Your task to perform on an android device: Go to wifi settings Image 0: 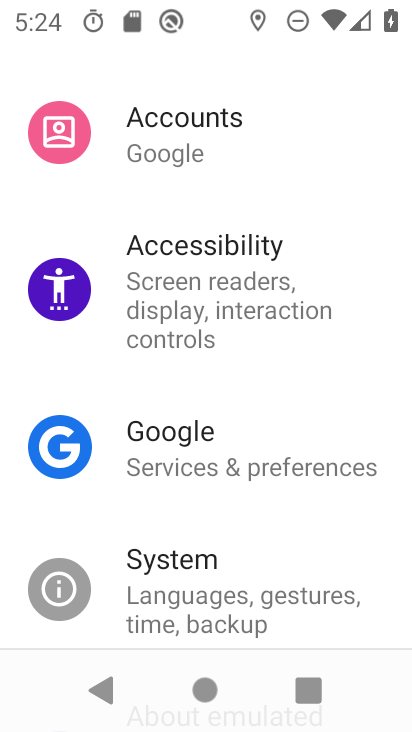
Step 0: press home button
Your task to perform on an android device: Go to wifi settings Image 1: 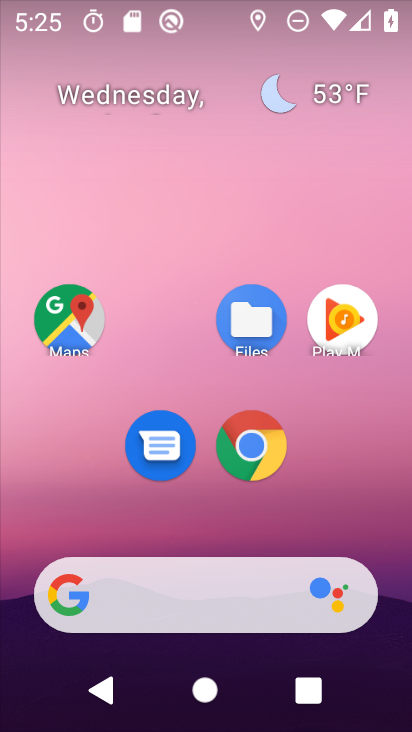
Step 1: drag from (237, 531) to (173, 62)
Your task to perform on an android device: Go to wifi settings Image 2: 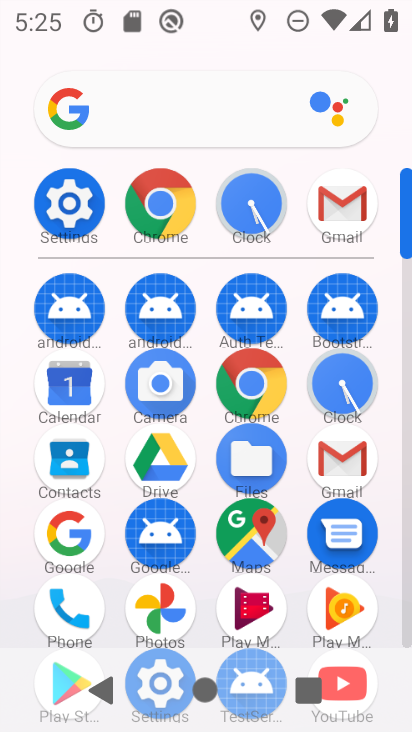
Step 2: click (75, 199)
Your task to perform on an android device: Go to wifi settings Image 3: 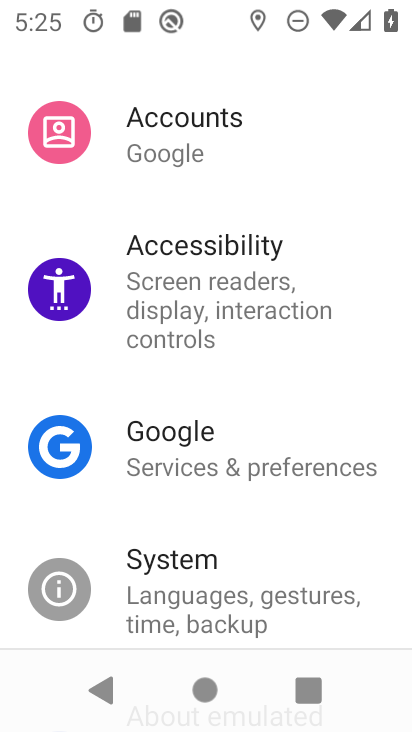
Step 3: drag from (296, 204) to (320, 684)
Your task to perform on an android device: Go to wifi settings Image 4: 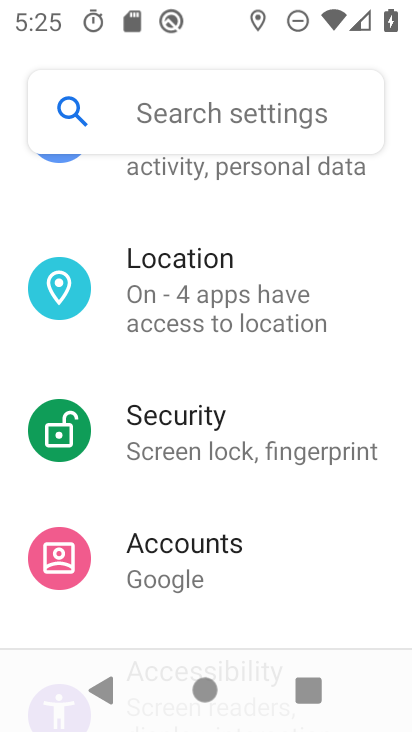
Step 4: drag from (285, 204) to (342, 443)
Your task to perform on an android device: Go to wifi settings Image 5: 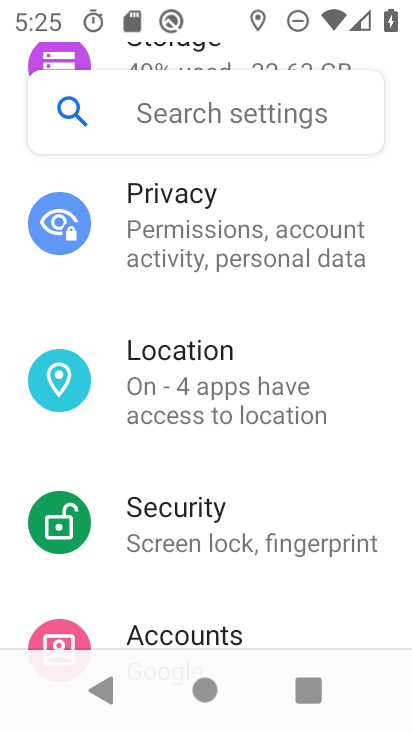
Step 5: drag from (287, 193) to (267, 416)
Your task to perform on an android device: Go to wifi settings Image 6: 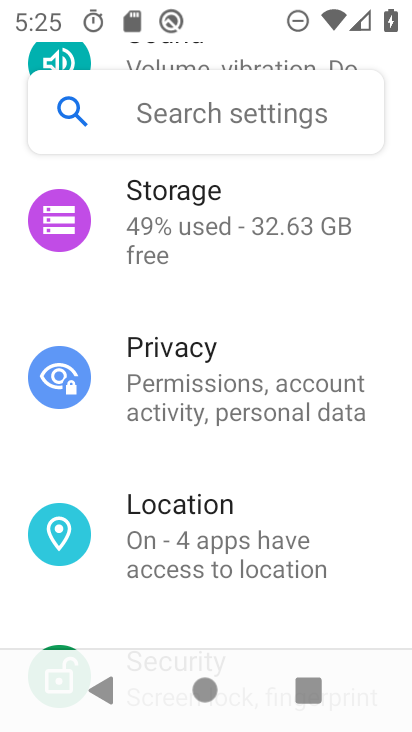
Step 6: drag from (278, 181) to (254, 507)
Your task to perform on an android device: Go to wifi settings Image 7: 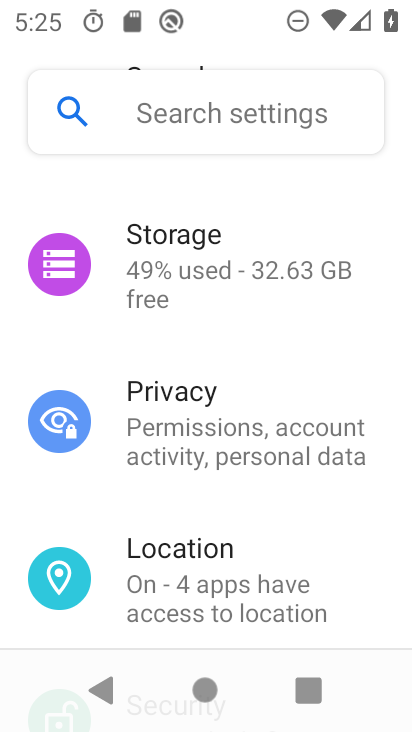
Step 7: drag from (220, 291) to (156, 711)
Your task to perform on an android device: Go to wifi settings Image 8: 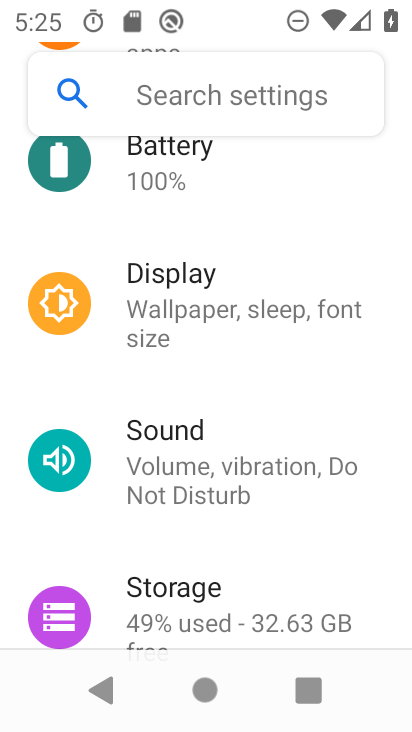
Step 8: drag from (283, 231) to (214, 524)
Your task to perform on an android device: Go to wifi settings Image 9: 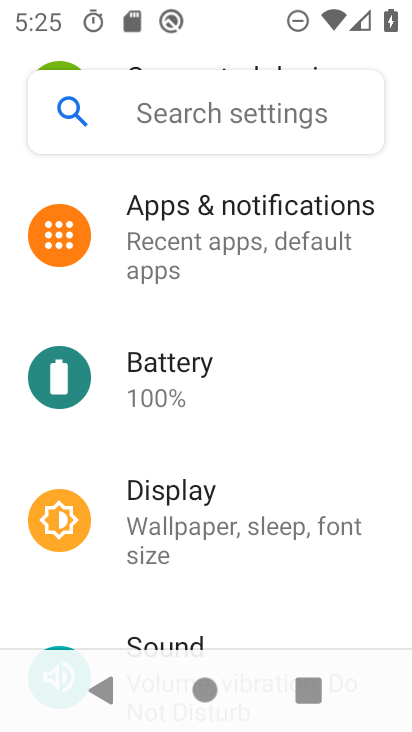
Step 9: drag from (202, 542) to (195, 596)
Your task to perform on an android device: Go to wifi settings Image 10: 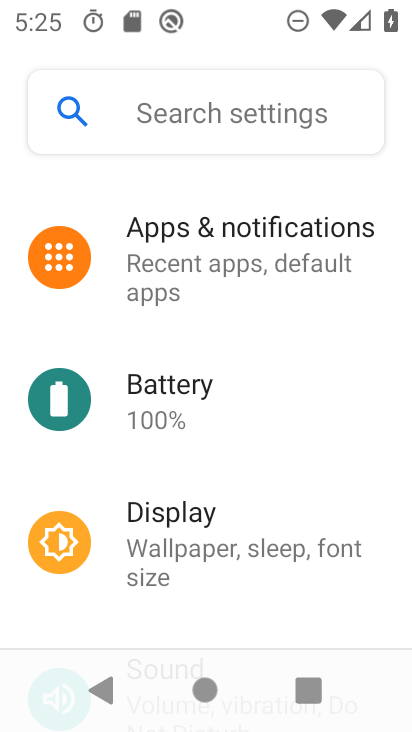
Step 10: drag from (247, 214) to (218, 632)
Your task to perform on an android device: Go to wifi settings Image 11: 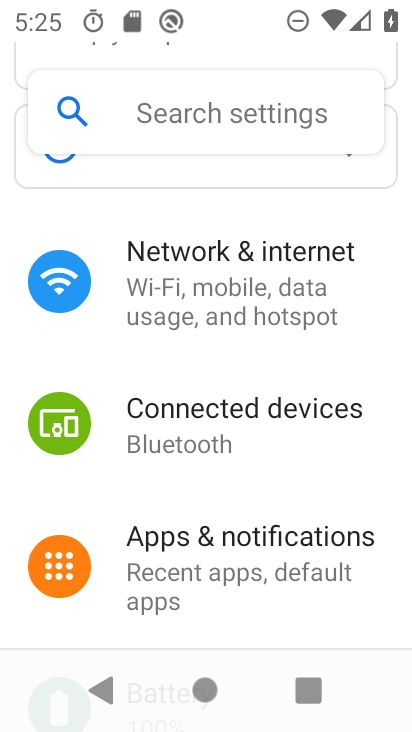
Step 11: click (211, 310)
Your task to perform on an android device: Go to wifi settings Image 12: 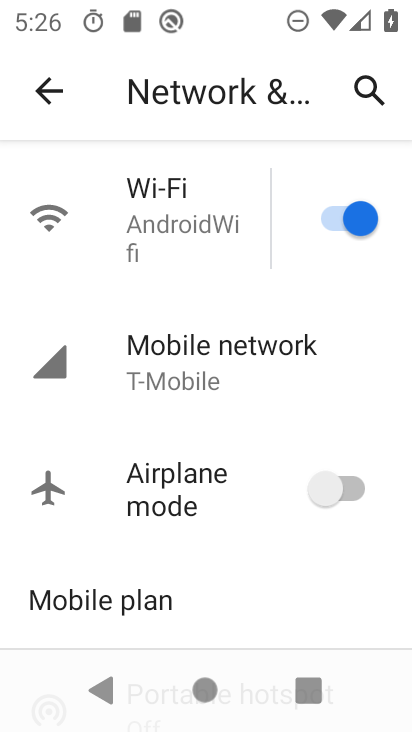
Step 12: click (179, 237)
Your task to perform on an android device: Go to wifi settings Image 13: 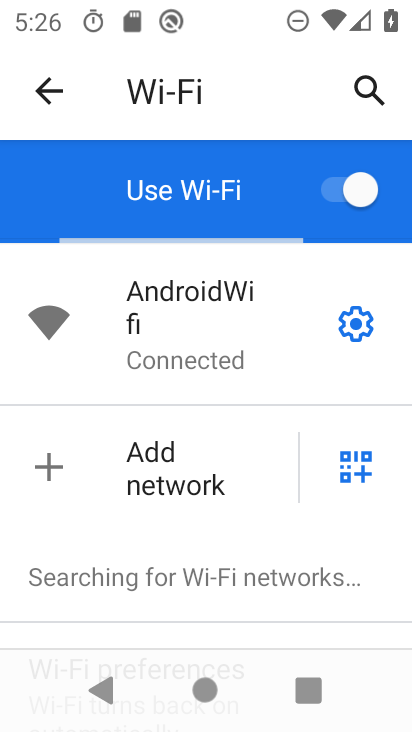
Step 13: task complete